Your task to perform on an android device: Search for cool wooden wall art on Etsy. Image 0: 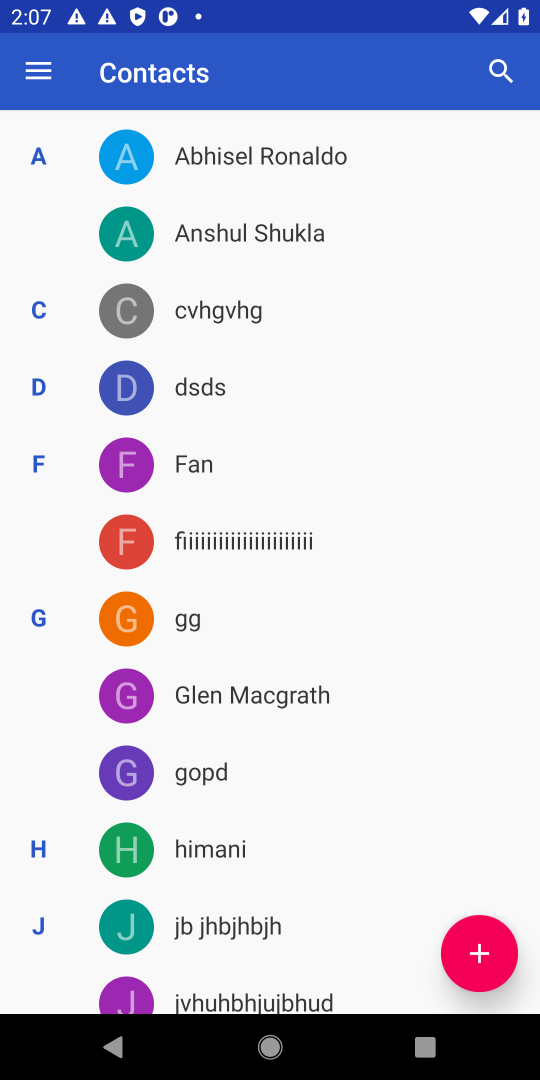
Step 0: press home button
Your task to perform on an android device: Search for cool wooden wall art on Etsy. Image 1: 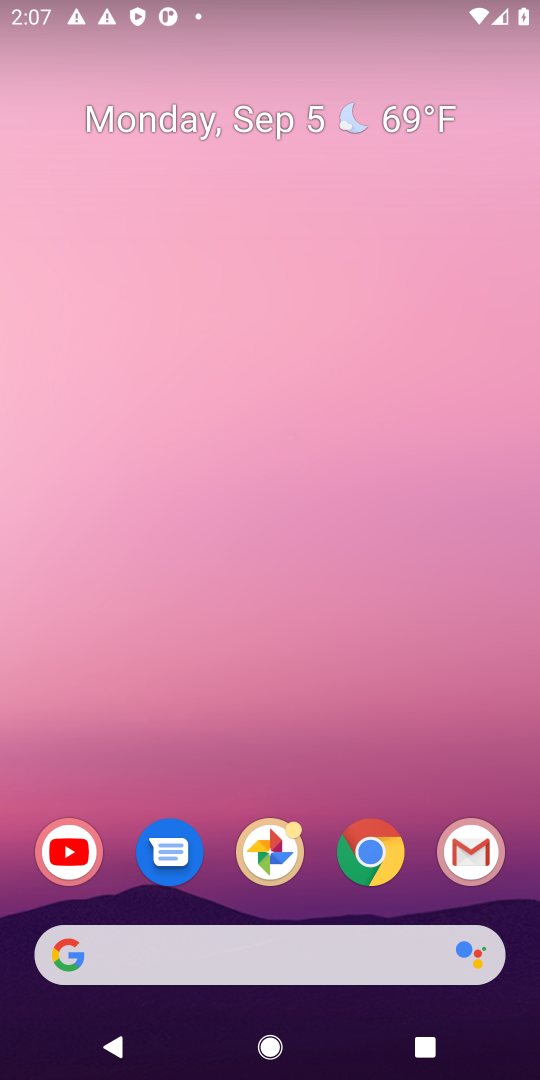
Step 1: click (366, 854)
Your task to perform on an android device: Search for cool wooden wall art on Etsy. Image 2: 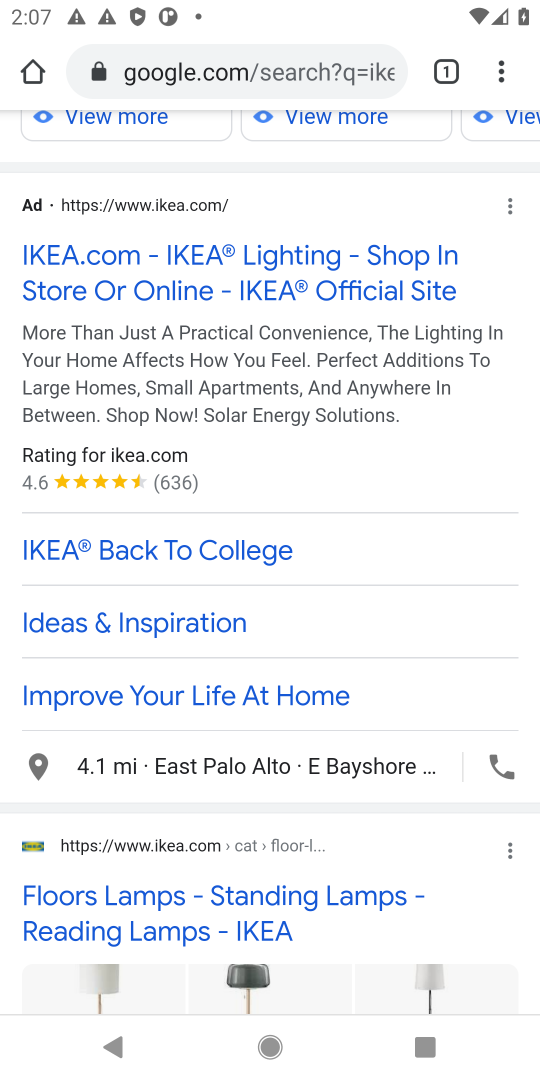
Step 2: click (282, 48)
Your task to perform on an android device: Search for cool wooden wall art on Etsy. Image 3: 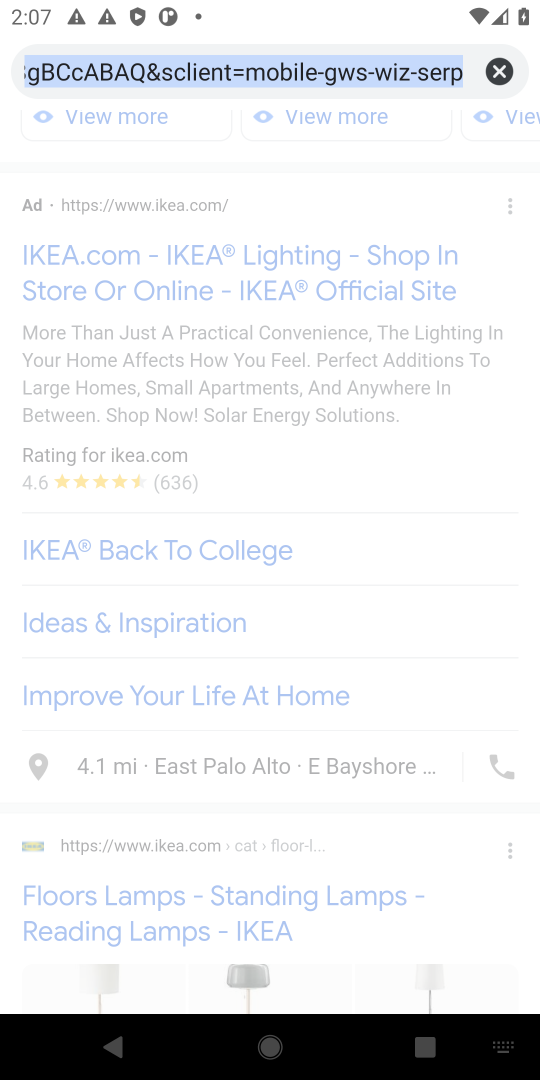
Step 3: click (492, 70)
Your task to perform on an android device: Search for cool wooden wall art on Etsy. Image 4: 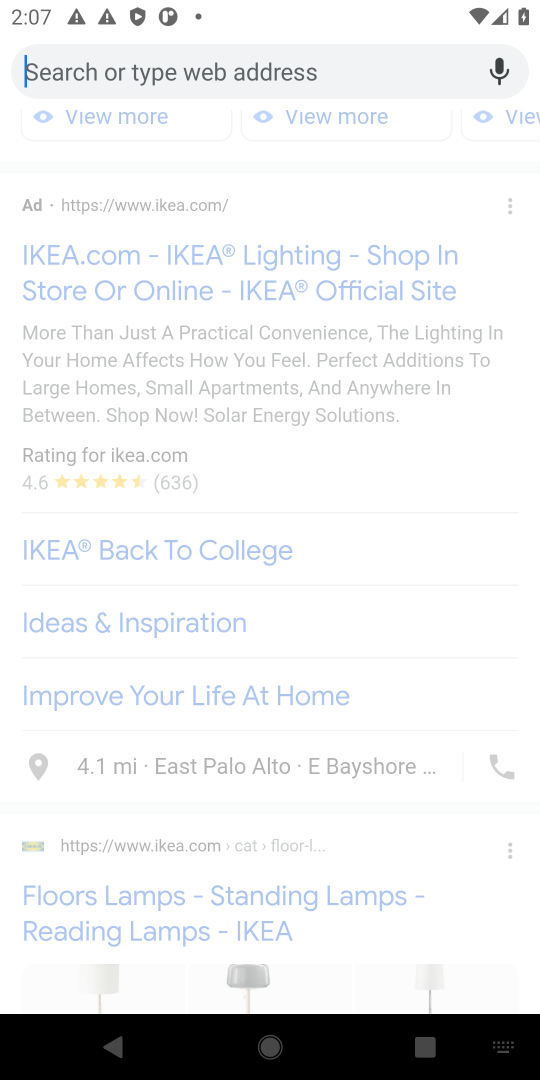
Step 4: type "Etsy"
Your task to perform on an android device: Search for cool wooden wall art on Etsy. Image 5: 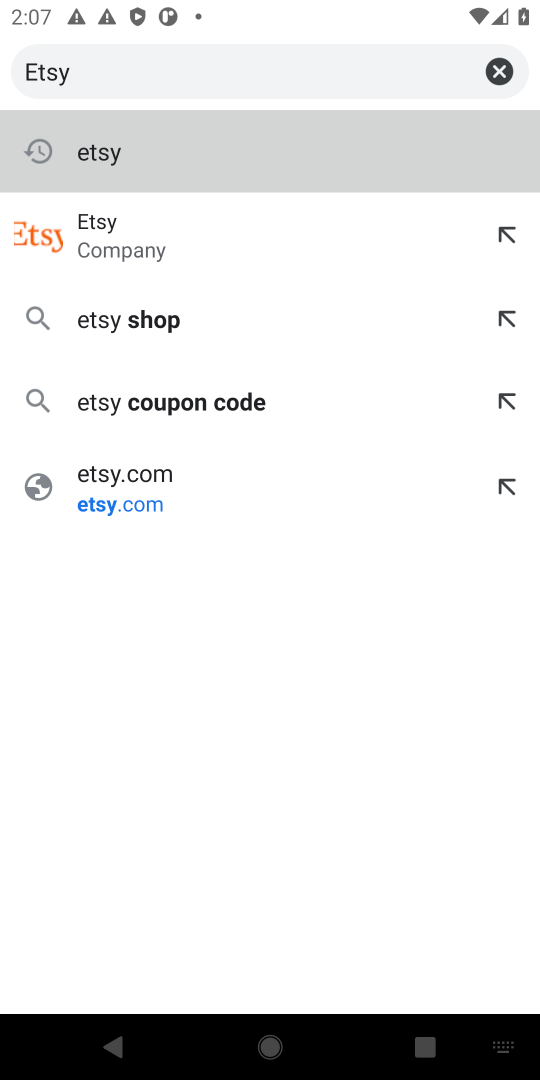
Step 5: click (89, 220)
Your task to perform on an android device: Search for cool wooden wall art on Etsy. Image 6: 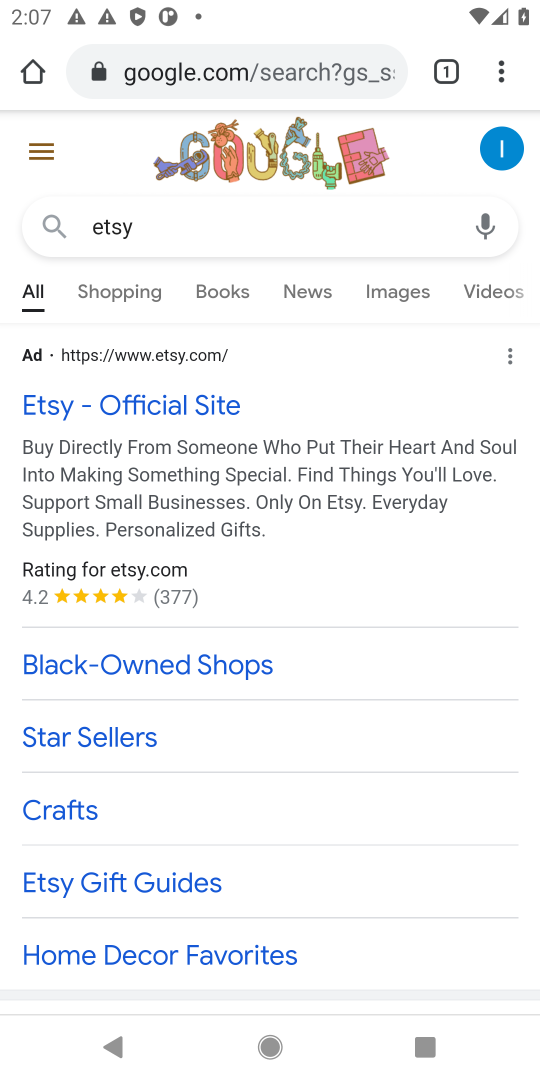
Step 6: click (54, 419)
Your task to perform on an android device: Search for cool wooden wall art on Etsy. Image 7: 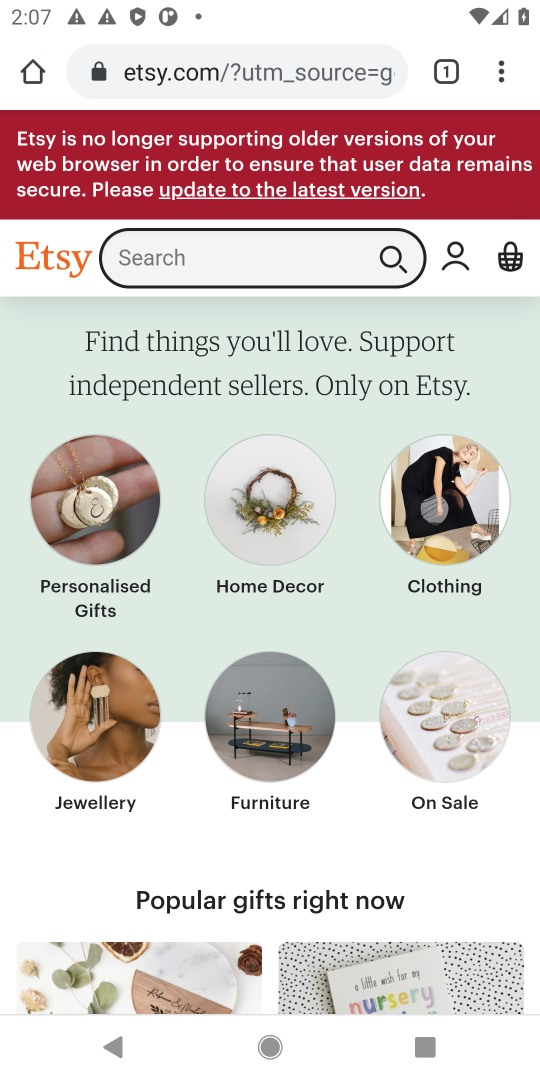
Step 7: click (153, 258)
Your task to perform on an android device: Search for cool wooden wall art on Etsy. Image 8: 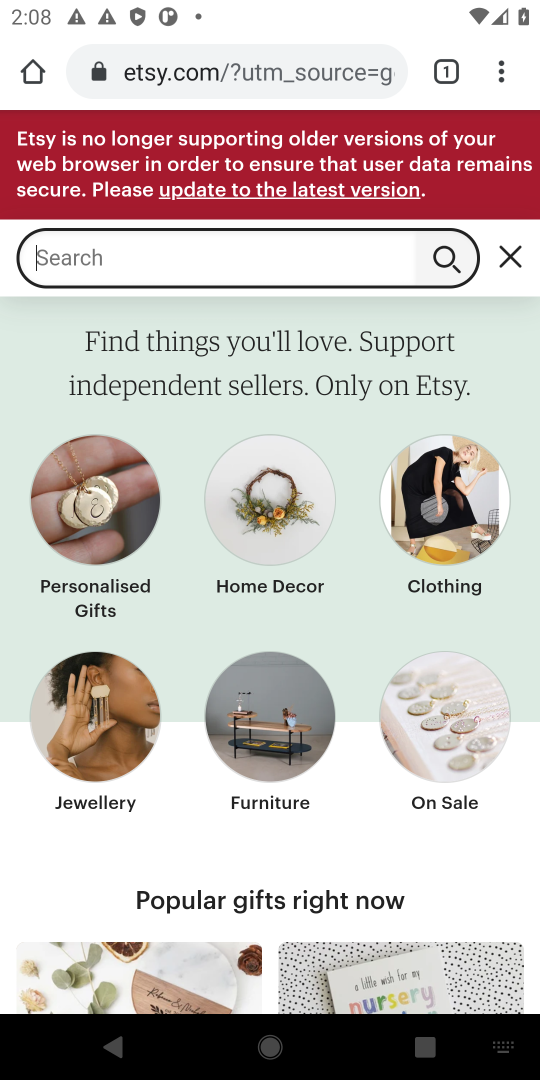
Step 8: type " cool wooden wall art"
Your task to perform on an android device: Search for cool wooden wall art on Etsy. Image 9: 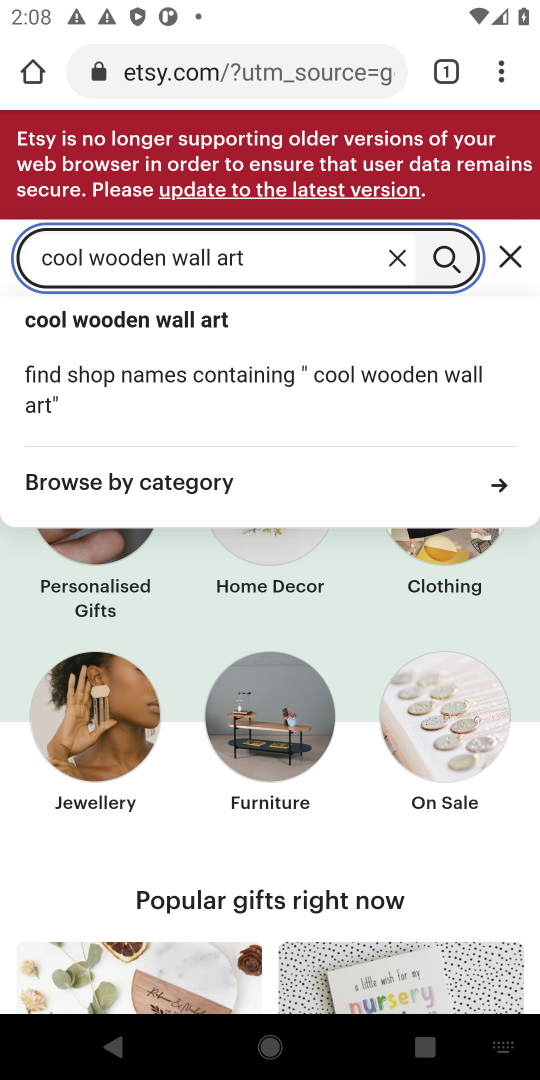
Step 9: click (443, 252)
Your task to perform on an android device: Search for cool wooden wall art on Etsy. Image 10: 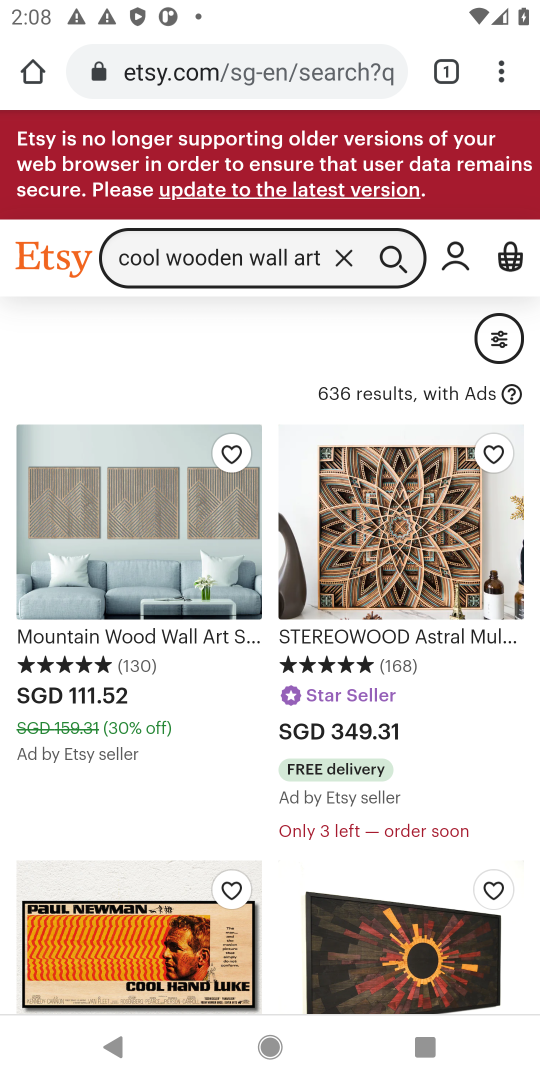
Step 10: drag from (268, 614) to (261, 301)
Your task to perform on an android device: Search for cool wooden wall art on Etsy. Image 11: 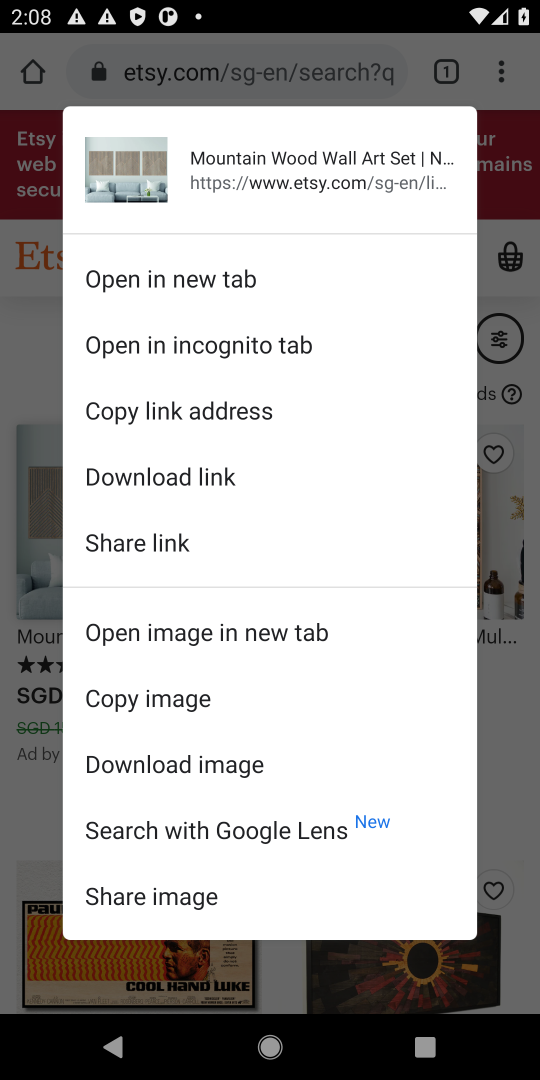
Step 11: click (8, 657)
Your task to perform on an android device: Search for cool wooden wall art on Etsy. Image 12: 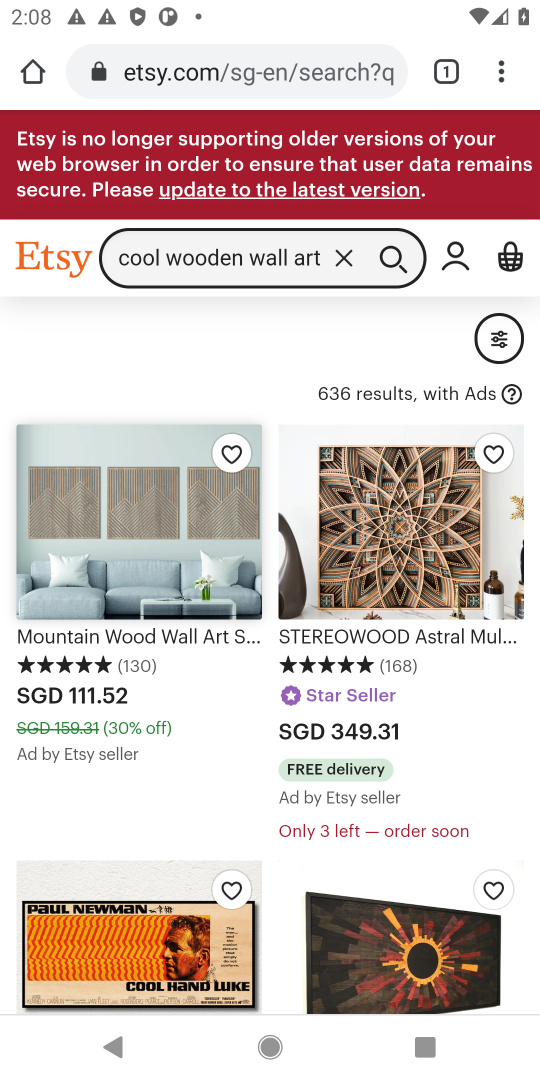
Step 12: task complete